Your task to perform on an android device: Open Google Maps and go to "Timeline" Image 0: 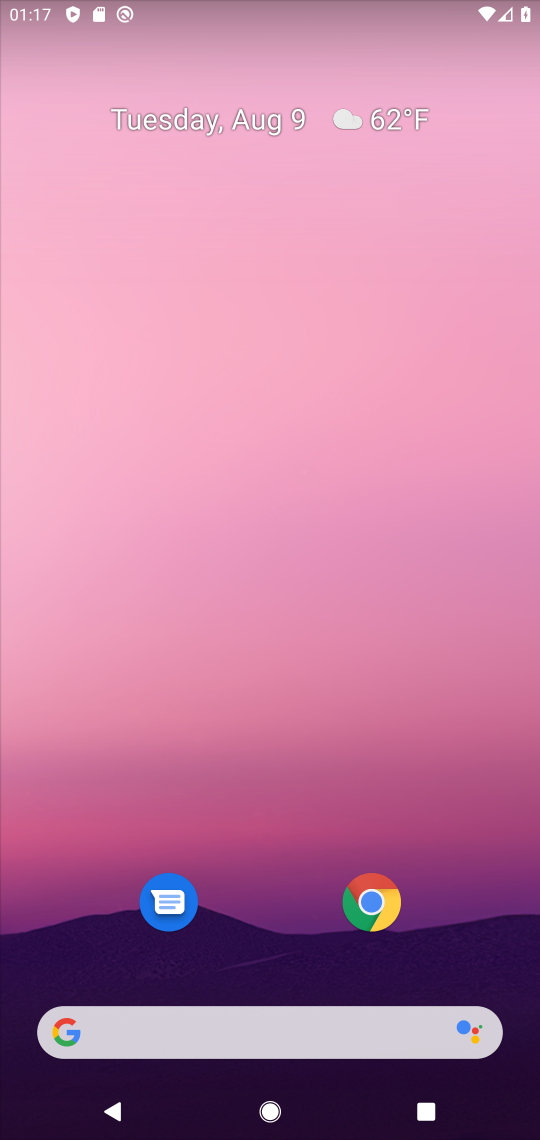
Step 0: drag from (256, 805) to (278, 385)
Your task to perform on an android device: Open Google Maps and go to "Timeline" Image 1: 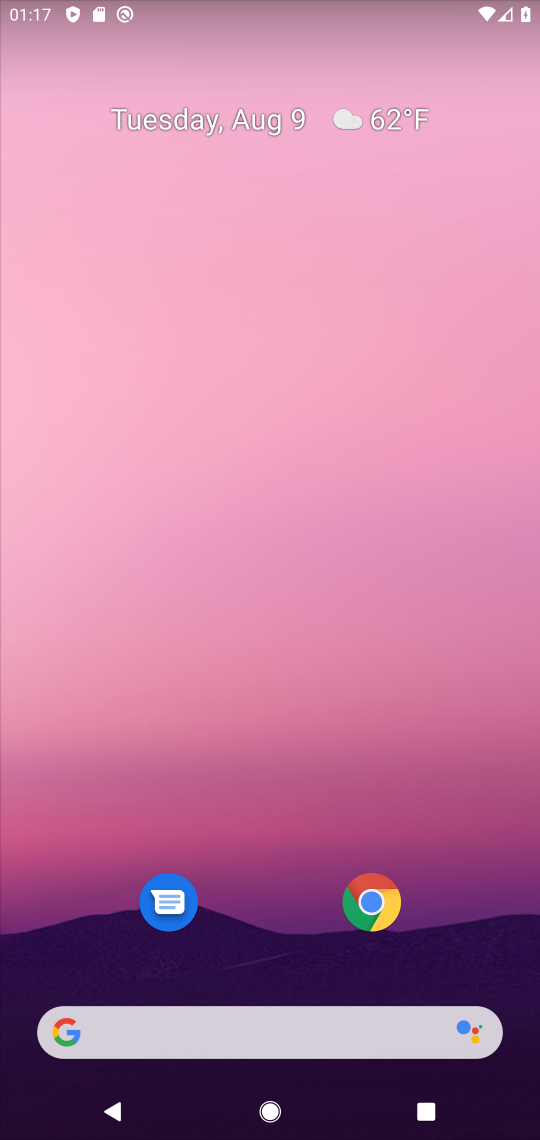
Step 1: drag from (288, 1009) to (333, 221)
Your task to perform on an android device: Open Google Maps and go to "Timeline" Image 2: 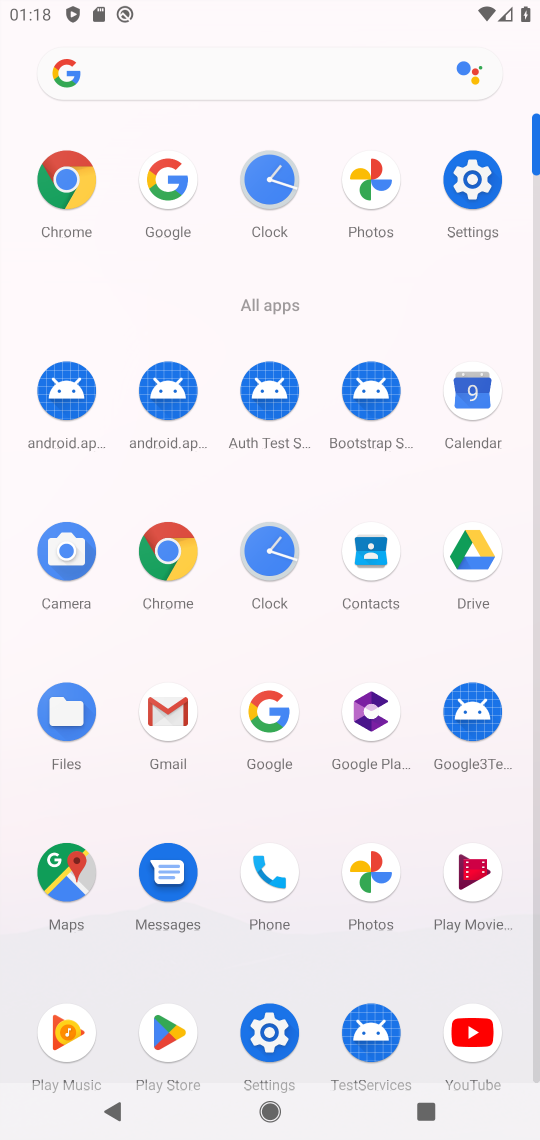
Step 2: click (473, 399)
Your task to perform on an android device: Open Google Maps and go to "Timeline" Image 3: 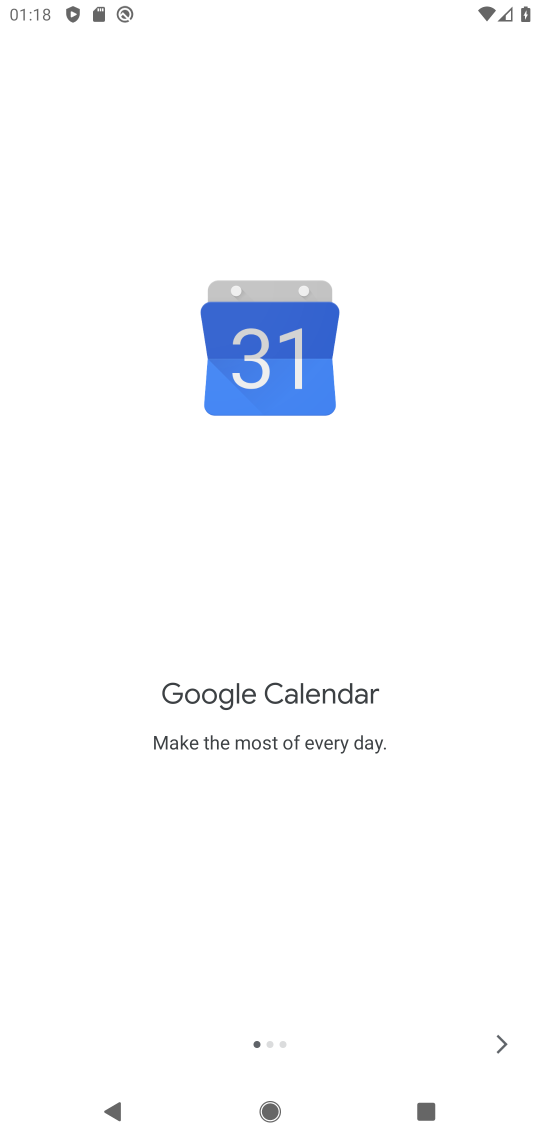
Step 3: click (501, 1041)
Your task to perform on an android device: Open Google Maps and go to "Timeline" Image 4: 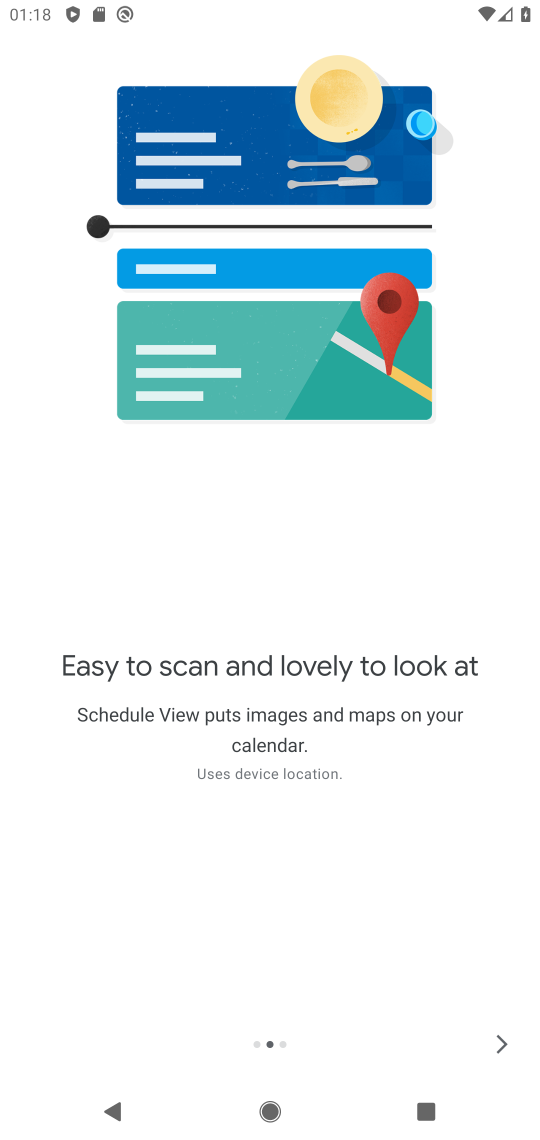
Step 4: click (501, 1041)
Your task to perform on an android device: Open Google Maps and go to "Timeline" Image 5: 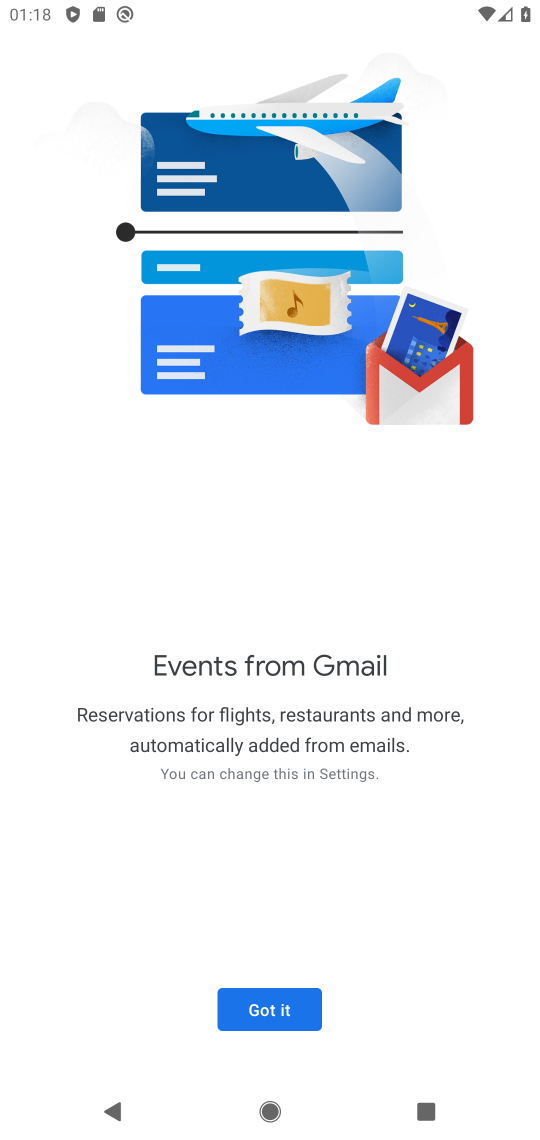
Step 5: click (275, 1017)
Your task to perform on an android device: Open Google Maps and go to "Timeline" Image 6: 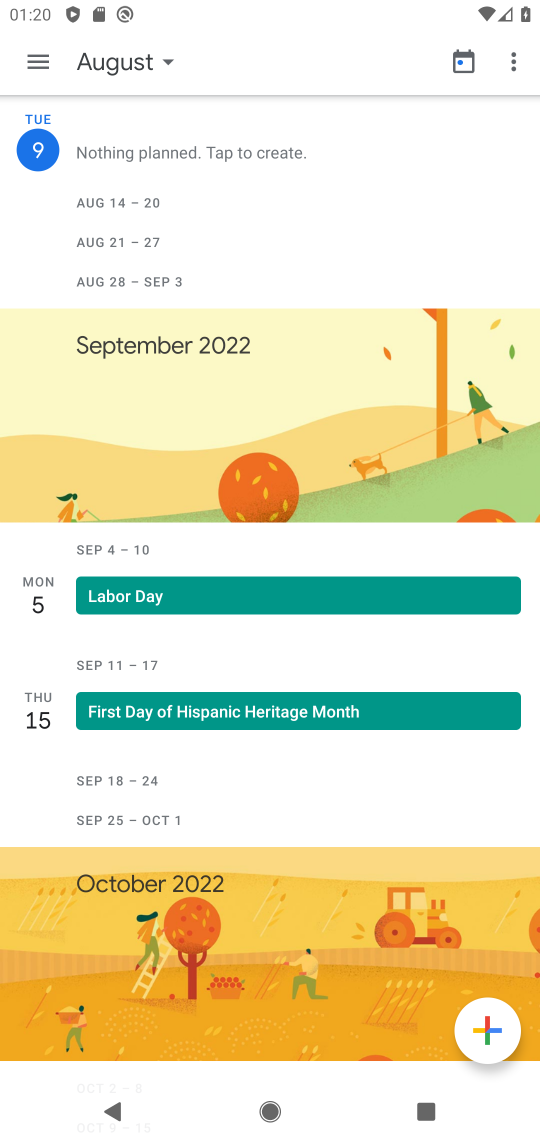
Step 6: press home button
Your task to perform on an android device: Open Google Maps and go to "Timeline" Image 7: 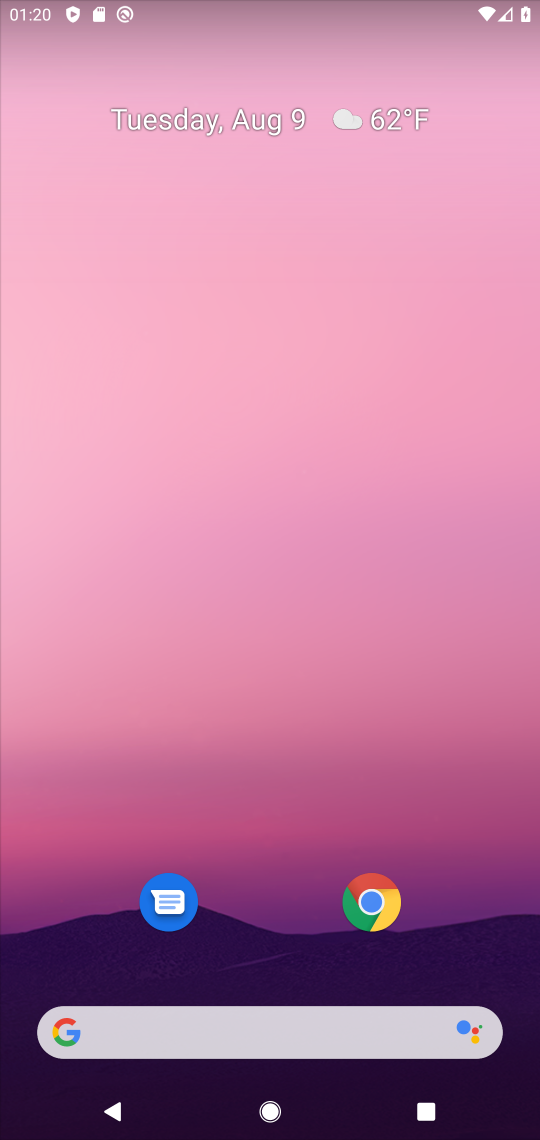
Step 7: drag from (279, 694) to (318, 394)
Your task to perform on an android device: Open Google Maps and go to "Timeline" Image 8: 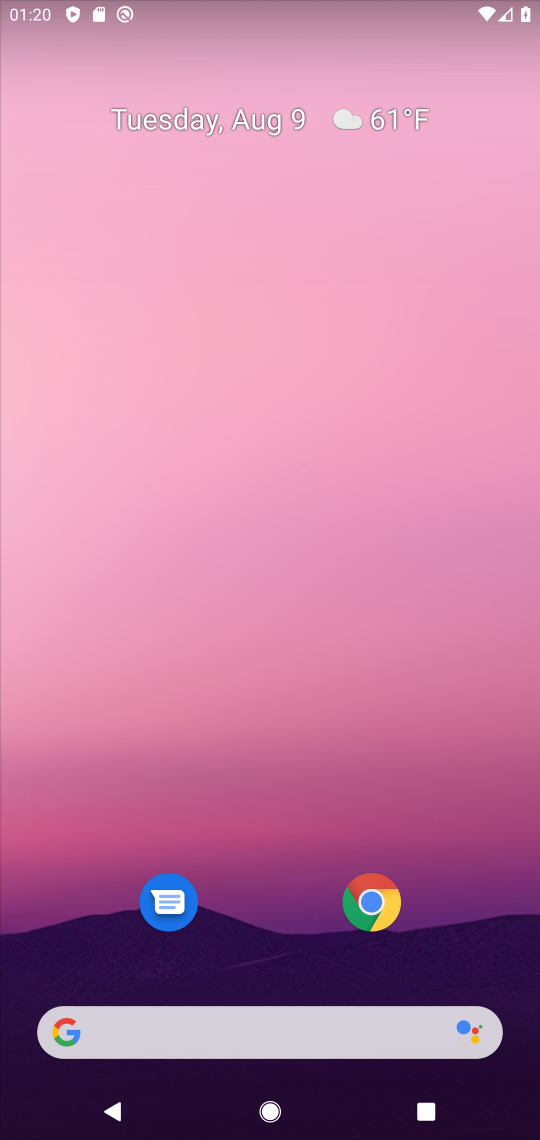
Step 8: drag from (225, 1005) to (265, 408)
Your task to perform on an android device: Open Google Maps and go to "Timeline" Image 9: 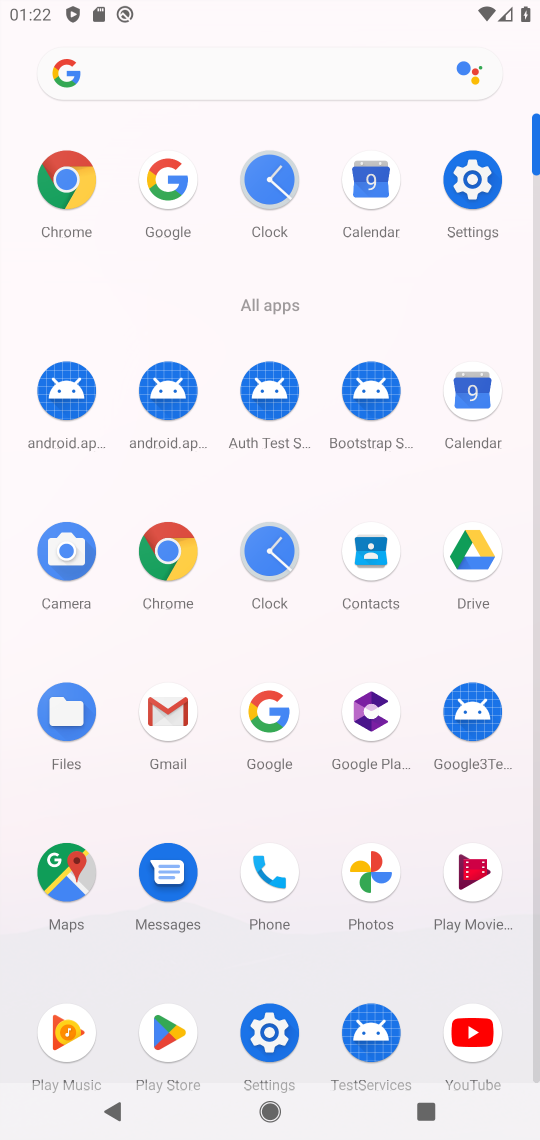
Step 9: click (62, 865)
Your task to perform on an android device: Open Google Maps and go to "Timeline" Image 10: 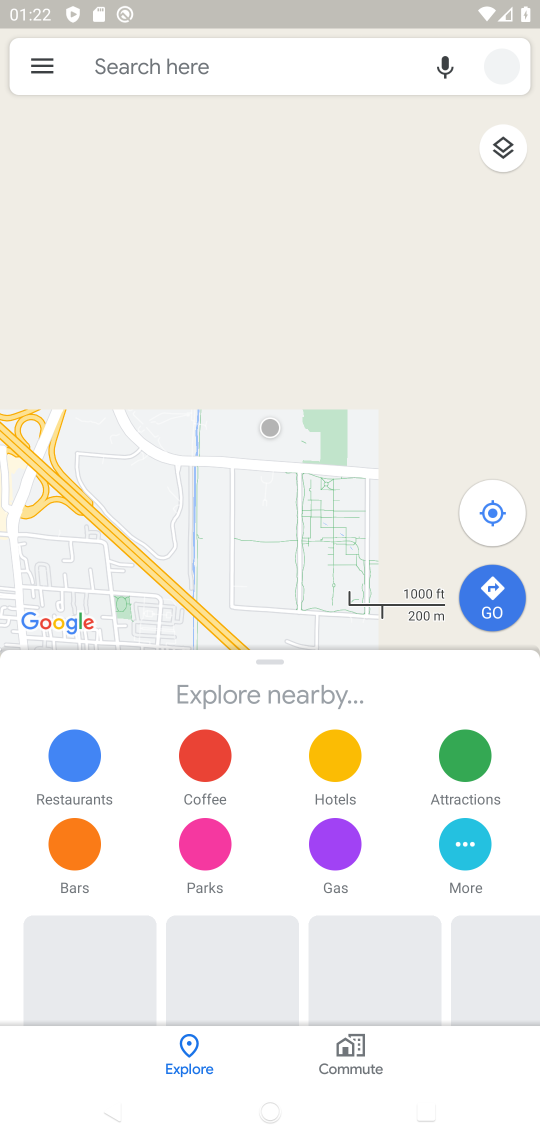
Step 10: click (39, 72)
Your task to perform on an android device: Open Google Maps and go to "Timeline" Image 11: 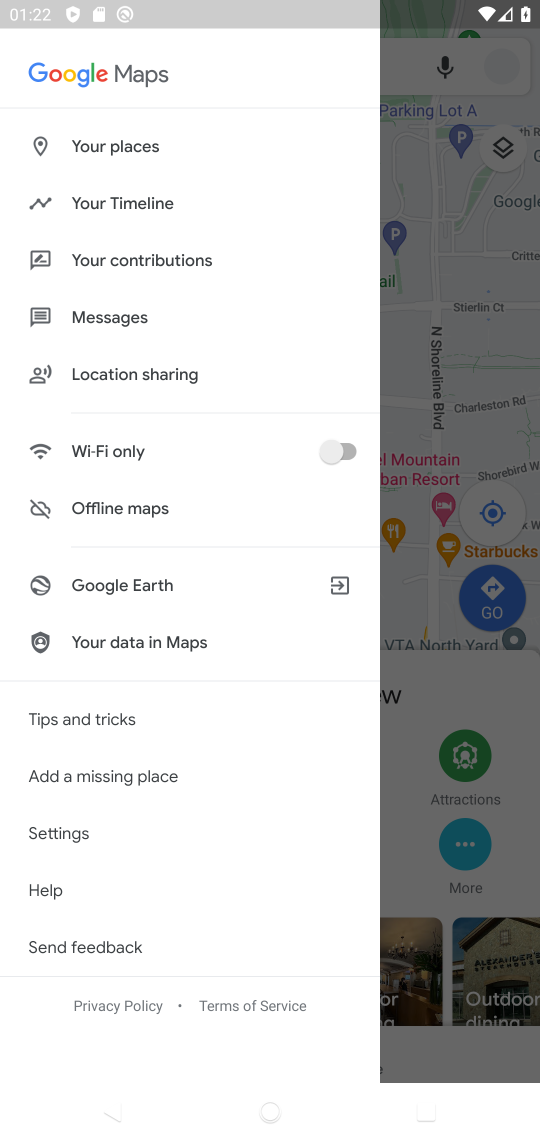
Step 11: click (134, 213)
Your task to perform on an android device: Open Google Maps and go to "Timeline" Image 12: 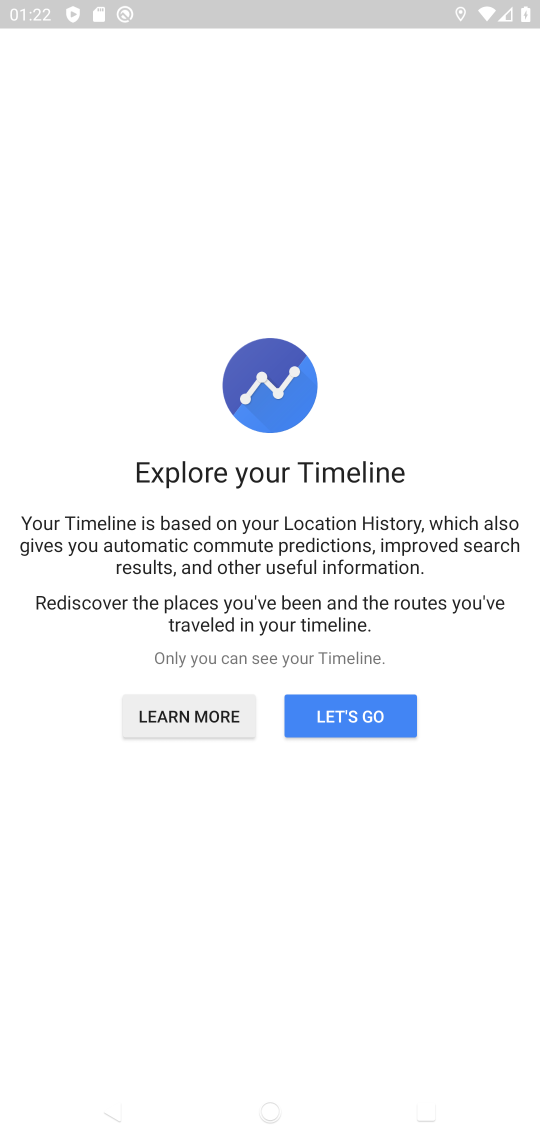
Step 12: click (322, 722)
Your task to perform on an android device: Open Google Maps and go to "Timeline" Image 13: 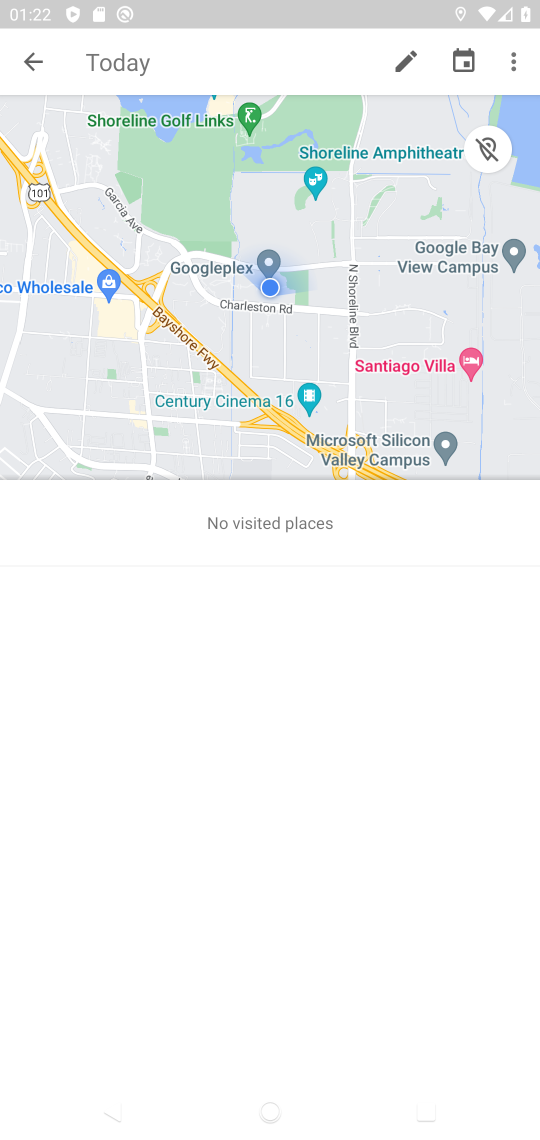
Step 13: task complete